Your task to perform on an android device: Open location settings Image 0: 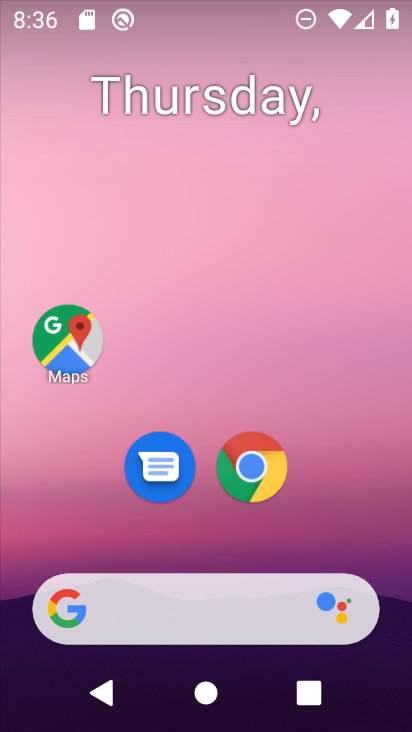
Step 0: drag from (337, 500) to (259, 16)
Your task to perform on an android device: Open location settings Image 1: 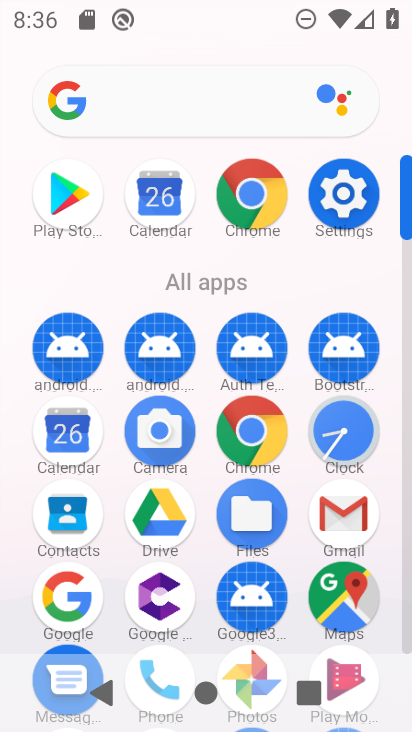
Step 1: click (346, 184)
Your task to perform on an android device: Open location settings Image 2: 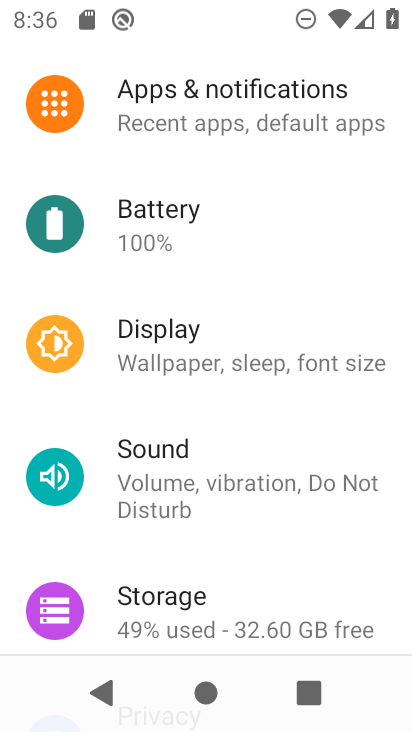
Step 2: drag from (236, 568) to (210, 162)
Your task to perform on an android device: Open location settings Image 3: 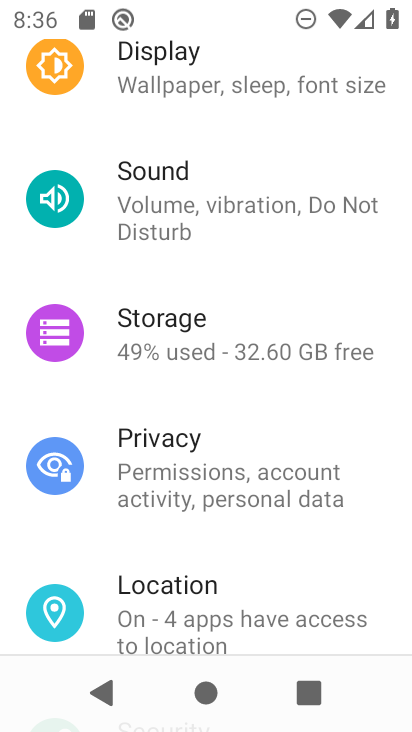
Step 3: click (167, 589)
Your task to perform on an android device: Open location settings Image 4: 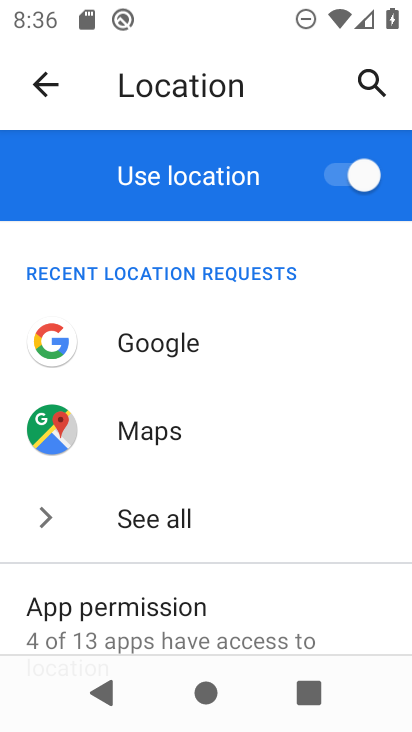
Step 4: task complete